Your task to perform on an android device: open the mobile data screen to see how much data has been used Image 0: 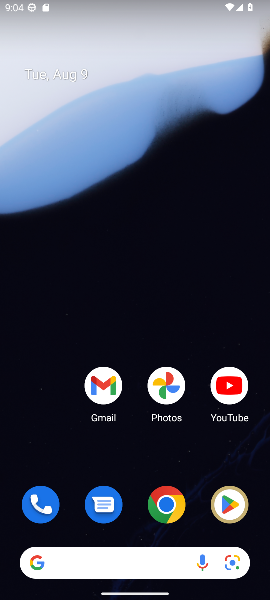
Step 0: drag from (129, 450) to (108, 18)
Your task to perform on an android device: open the mobile data screen to see how much data has been used Image 1: 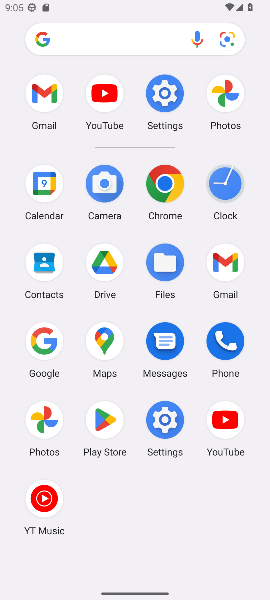
Step 1: click (166, 91)
Your task to perform on an android device: open the mobile data screen to see how much data has been used Image 2: 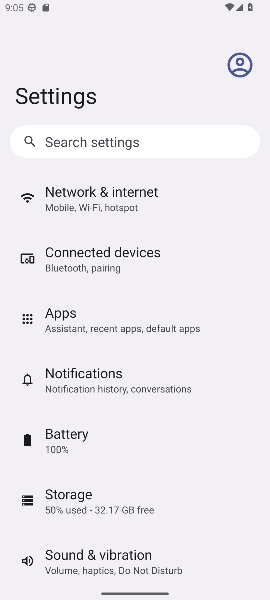
Step 2: click (91, 195)
Your task to perform on an android device: open the mobile data screen to see how much data has been used Image 3: 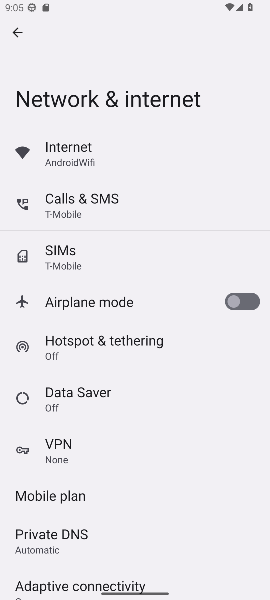
Step 3: click (71, 146)
Your task to perform on an android device: open the mobile data screen to see how much data has been used Image 4: 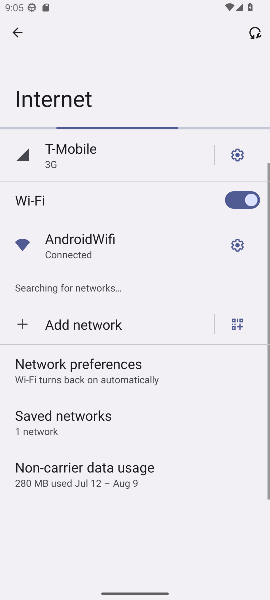
Step 4: click (91, 468)
Your task to perform on an android device: open the mobile data screen to see how much data has been used Image 5: 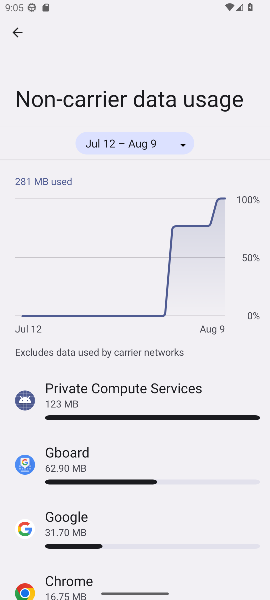
Step 5: task complete